Your task to perform on an android device: Go to CNN.com Image 0: 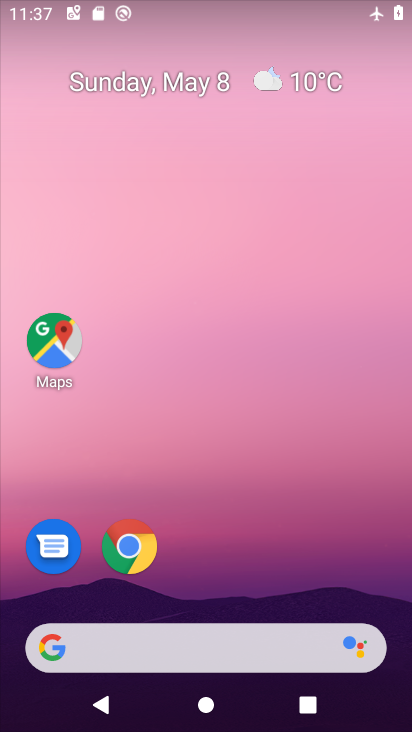
Step 0: click (129, 549)
Your task to perform on an android device: Go to CNN.com Image 1: 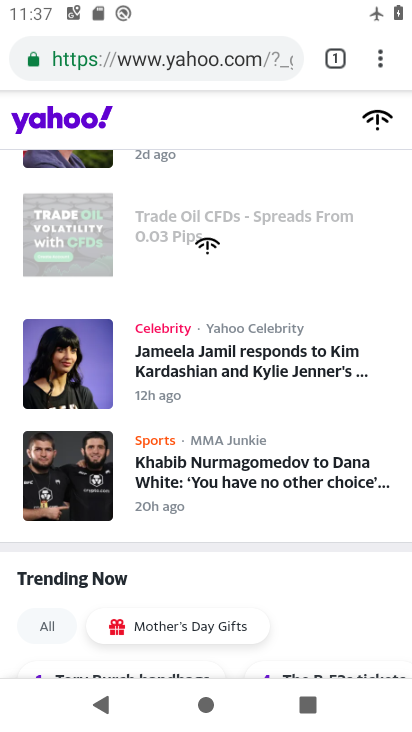
Step 1: click (149, 51)
Your task to perform on an android device: Go to CNN.com Image 2: 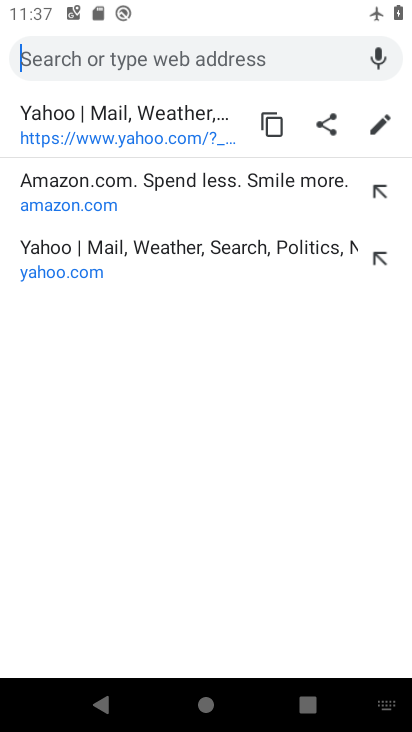
Step 2: type "cnn.com"
Your task to perform on an android device: Go to CNN.com Image 3: 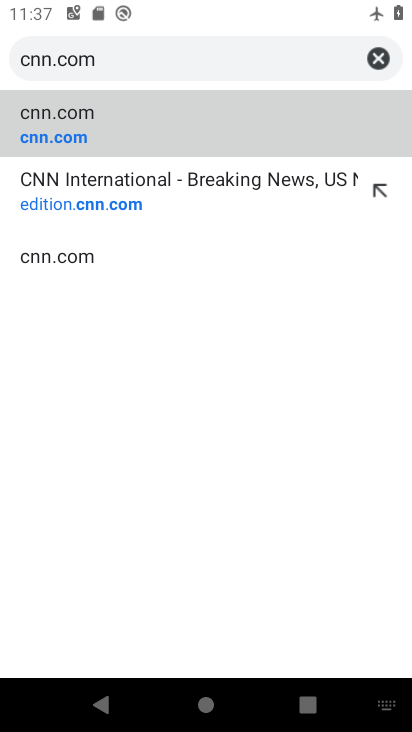
Step 3: click (70, 126)
Your task to perform on an android device: Go to CNN.com Image 4: 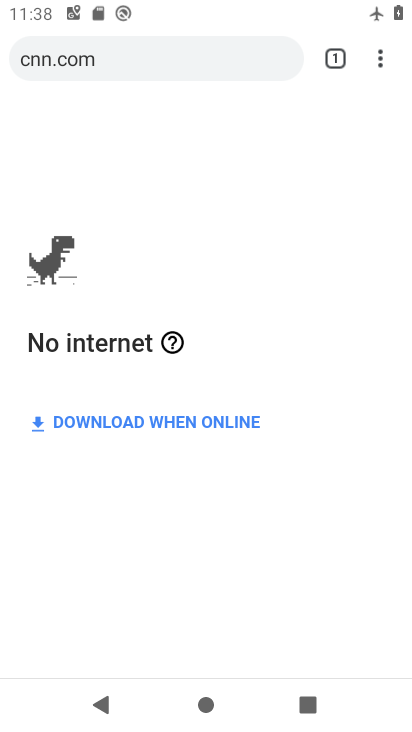
Step 4: task complete